Your task to perform on an android device: open device folders in google photos Image 0: 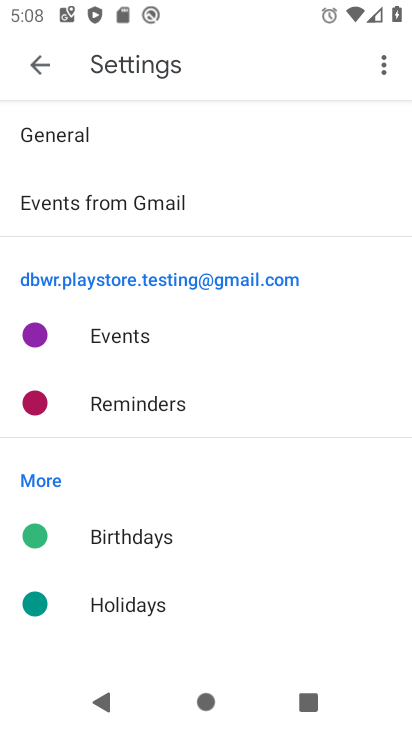
Step 0: press home button
Your task to perform on an android device: open device folders in google photos Image 1: 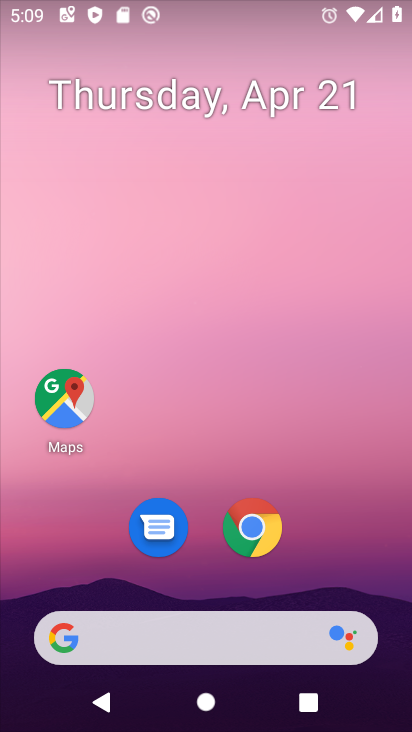
Step 1: click (381, 207)
Your task to perform on an android device: open device folders in google photos Image 2: 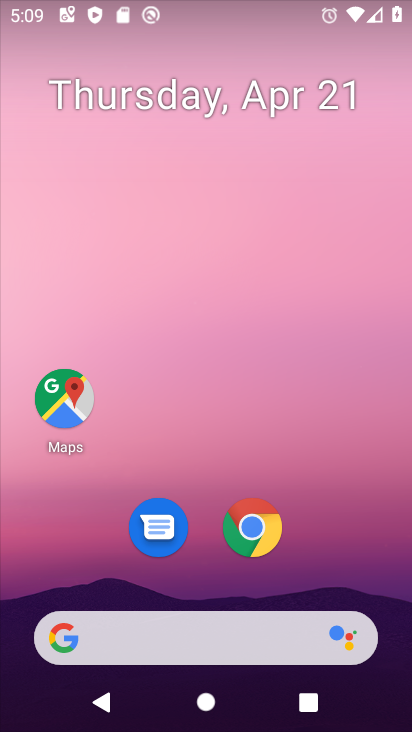
Step 2: drag from (381, 566) to (355, 212)
Your task to perform on an android device: open device folders in google photos Image 3: 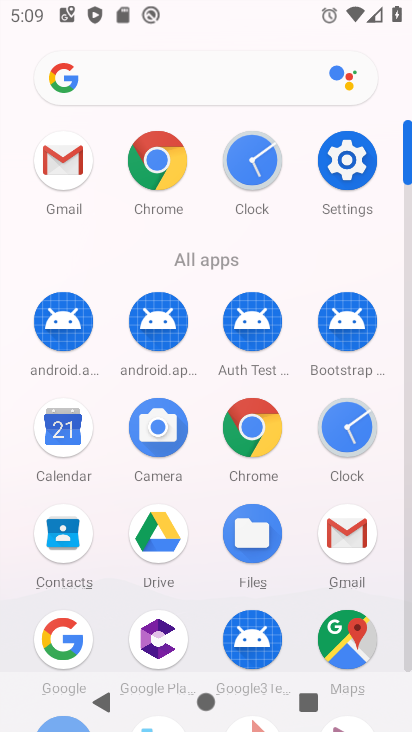
Step 3: drag from (401, 157) to (390, 68)
Your task to perform on an android device: open device folders in google photos Image 4: 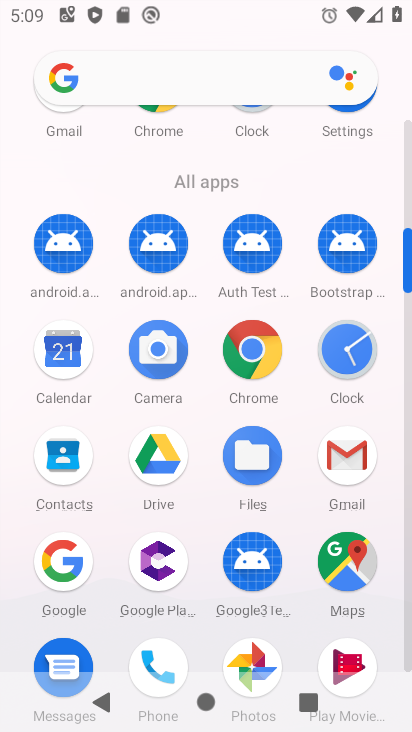
Step 4: click (242, 643)
Your task to perform on an android device: open device folders in google photos Image 5: 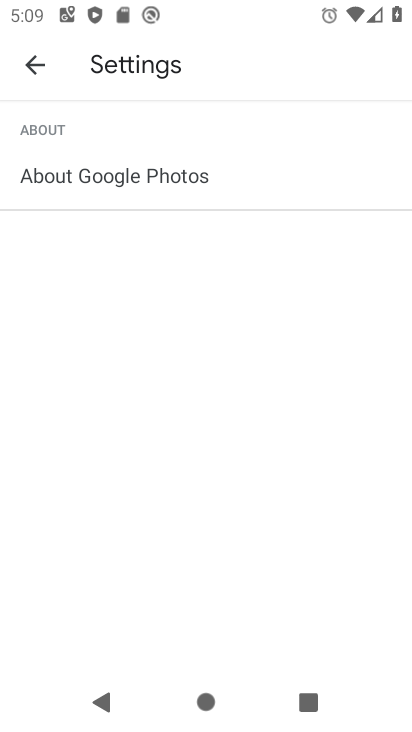
Step 5: press back button
Your task to perform on an android device: open device folders in google photos Image 6: 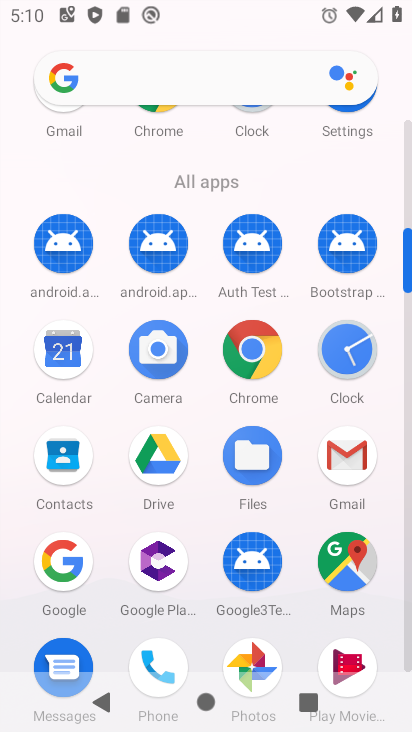
Step 6: click (244, 647)
Your task to perform on an android device: open device folders in google photos Image 7: 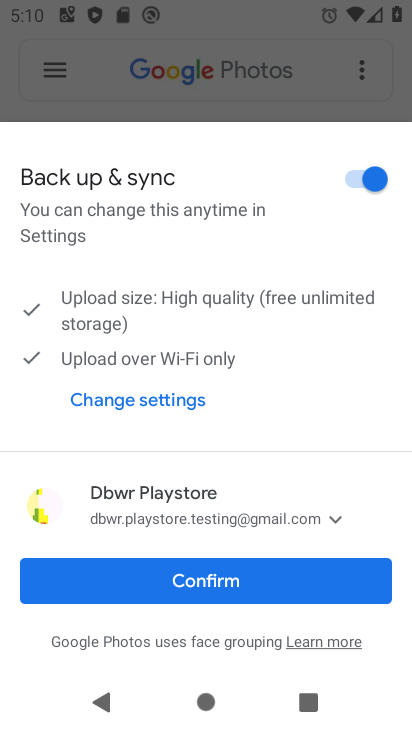
Step 7: click (208, 566)
Your task to perform on an android device: open device folders in google photos Image 8: 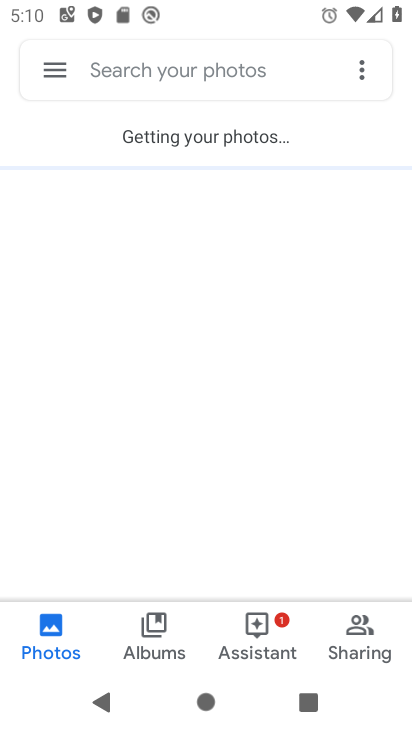
Step 8: click (46, 69)
Your task to perform on an android device: open device folders in google photos Image 9: 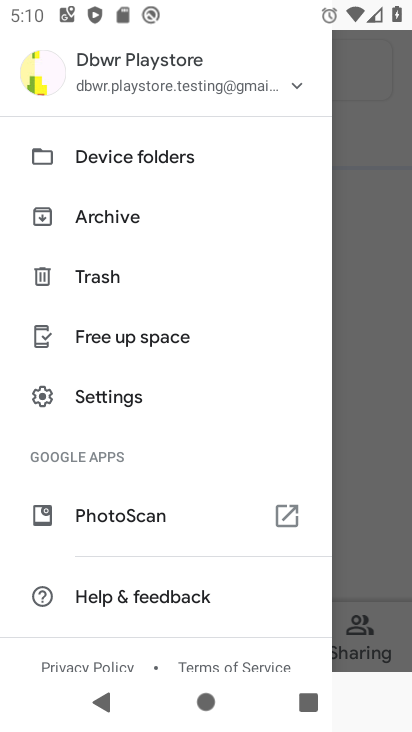
Step 9: click (105, 160)
Your task to perform on an android device: open device folders in google photos Image 10: 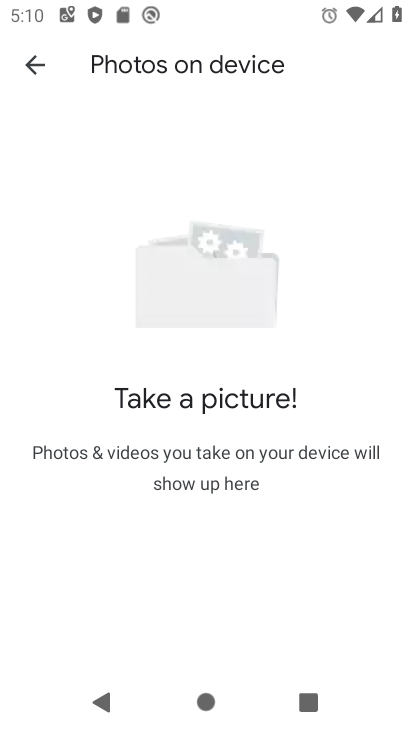
Step 10: task complete